Your task to perform on an android device: Open Chrome and go to settings Image 0: 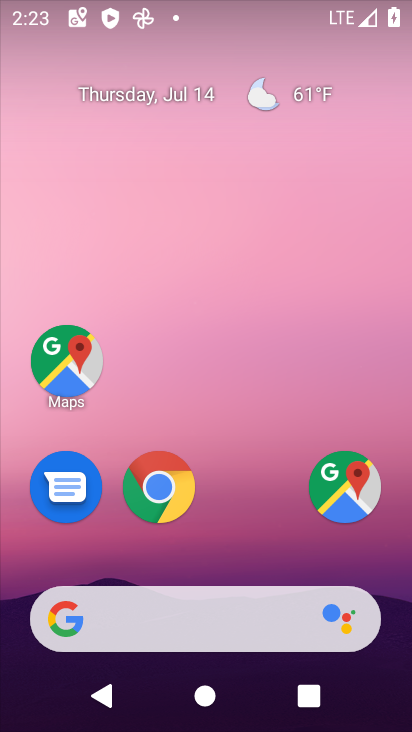
Step 0: drag from (263, 561) to (278, 209)
Your task to perform on an android device: Open Chrome and go to settings Image 1: 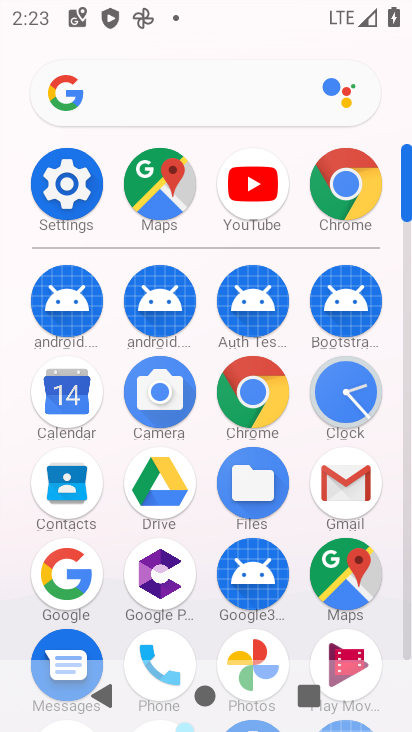
Step 1: click (264, 393)
Your task to perform on an android device: Open Chrome and go to settings Image 2: 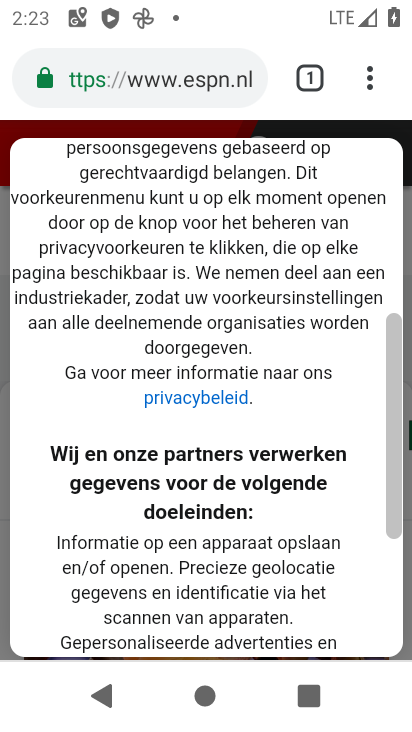
Step 2: click (370, 88)
Your task to perform on an android device: Open Chrome and go to settings Image 3: 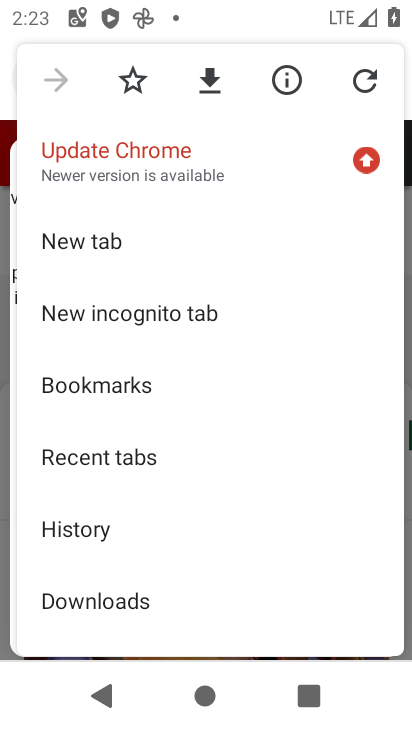
Step 3: drag from (251, 454) to (277, 320)
Your task to perform on an android device: Open Chrome and go to settings Image 4: 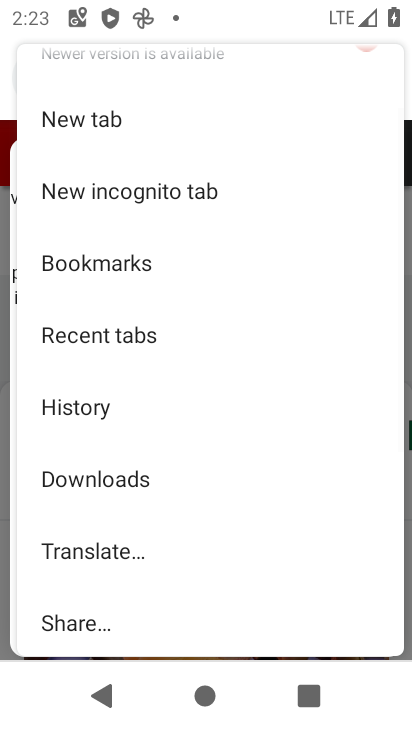
Step 4: drag from (292, 471) to (312, 284)
Your task to perform on an android device: Open Chrome and go to settings Image 5: 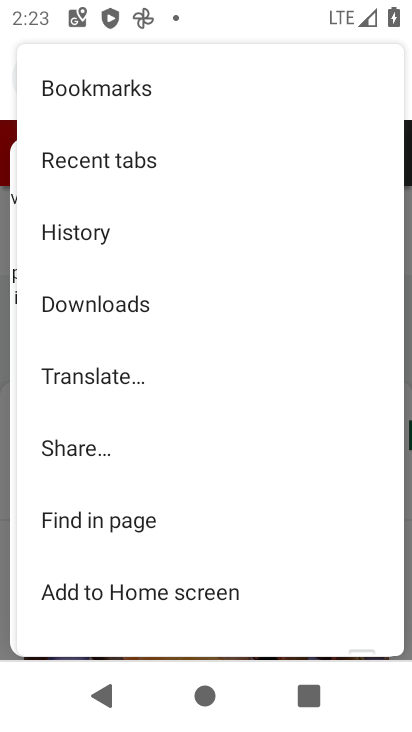
Step 5: drag from (299, 480) to (309, 364)
Your task to perform on an android device: Open Chrome and go to settings Image 6: 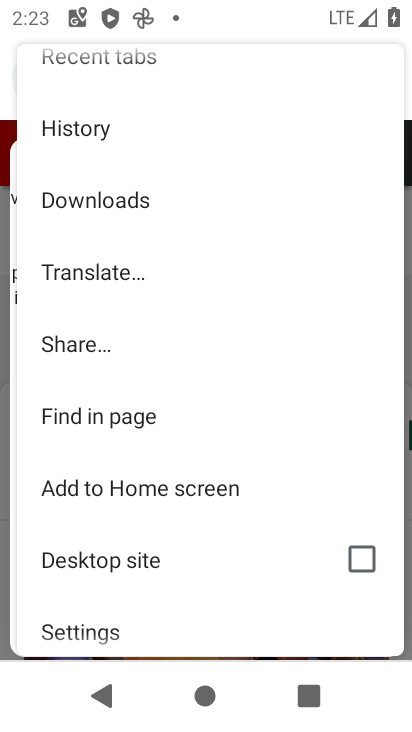
Step 6: drag from (303, 517) to (301, 391)
Your task to perform on an android device: Open Chrome and go to settings Image 7: 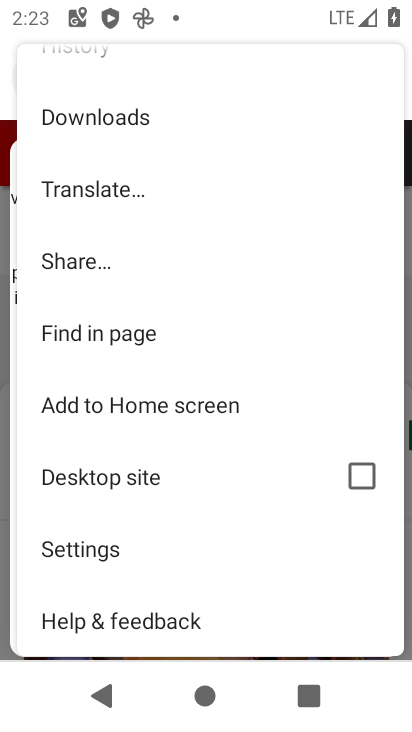
Step 7: drag from (272, 537) to (272, 436)
Your task to perform on an android device: Open Chrome and go to settings Image 8: 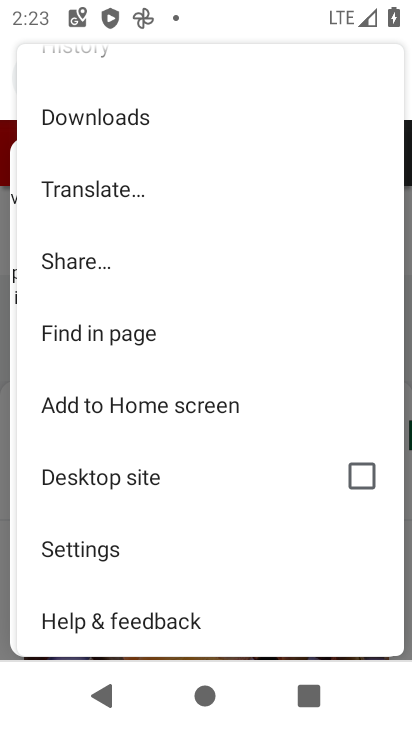
Step 8: click (126, 559)
Your task to perform on an android device: Open Chrome and go to settings Image 9: 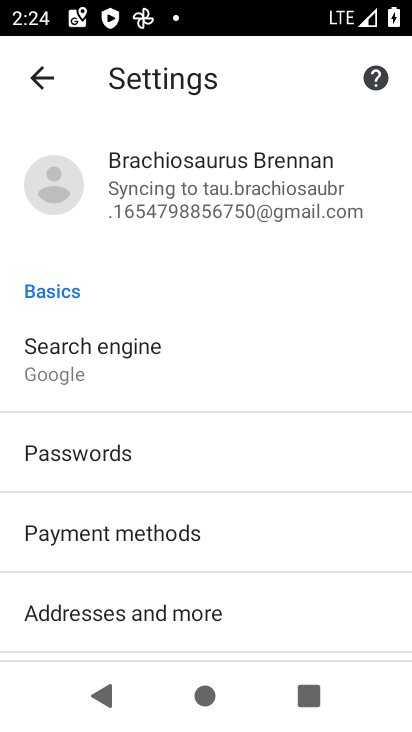
Step 9: task complete